Your task to perform on an android device: change the clock style Image 0: 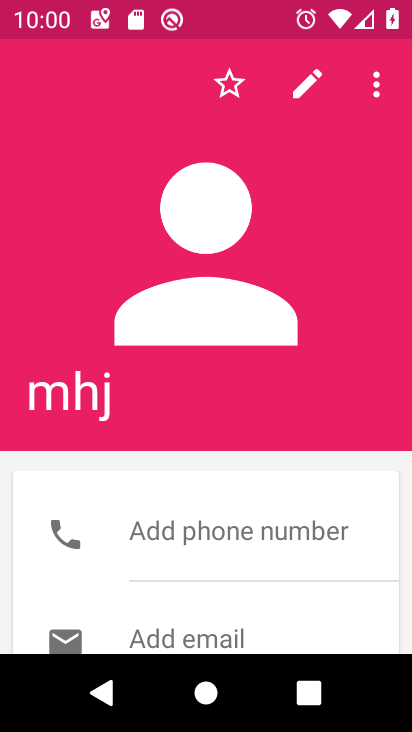
Step 0: press home button
Your task to perform on an android device: change the clock style Image 1: 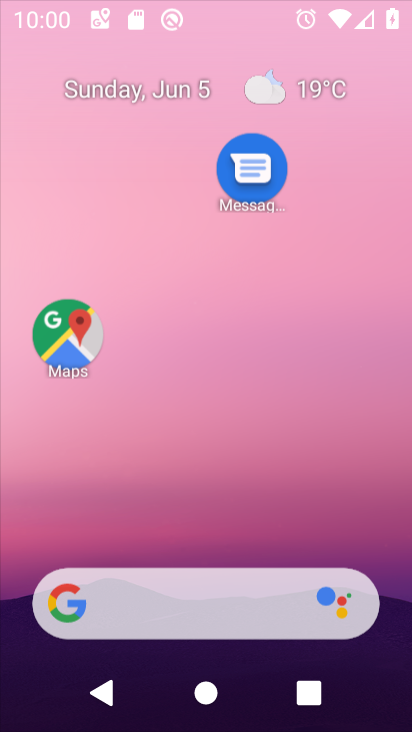
Step 1: drag from (292, 508) to (367, 77)
Your task to perform on an android device: change the clock style Image 2: 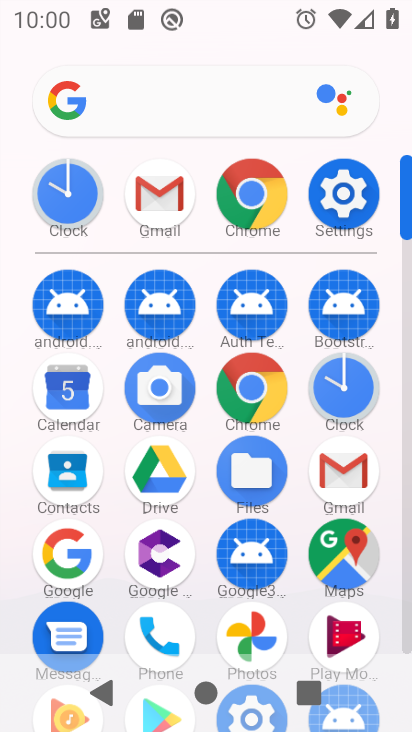
Step 2: click (353, 397)
Your task to perform on an android device: change the clock style Image 3: 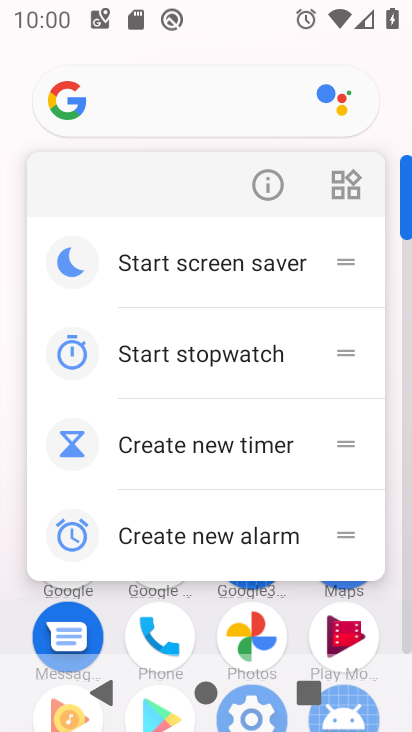
Step 3: click (259, 182)
Your task to perform on an android device: change the clock style Image 4: 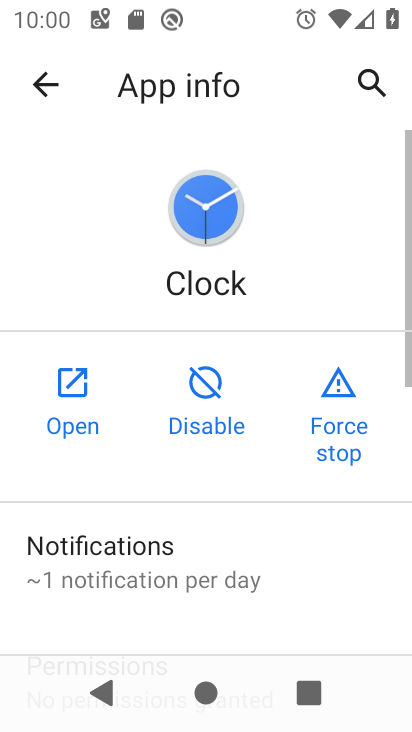
Step 4: click (84, 367)
Your task to perform on an android device: change the clock style Image 5: 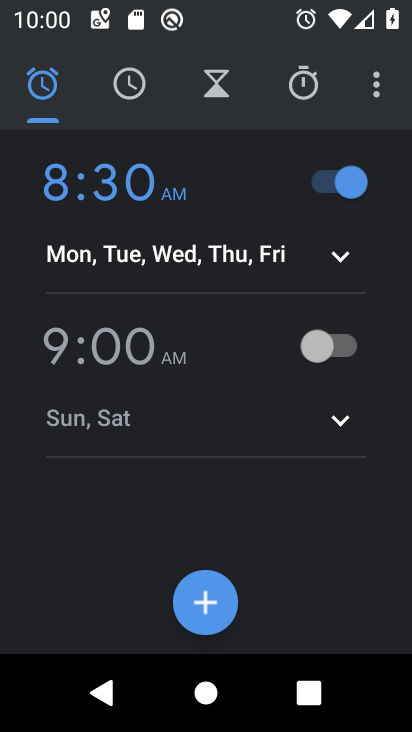
Step 5: click (369, 102)
Your task to perform on an android device: change the clock style Image 6: 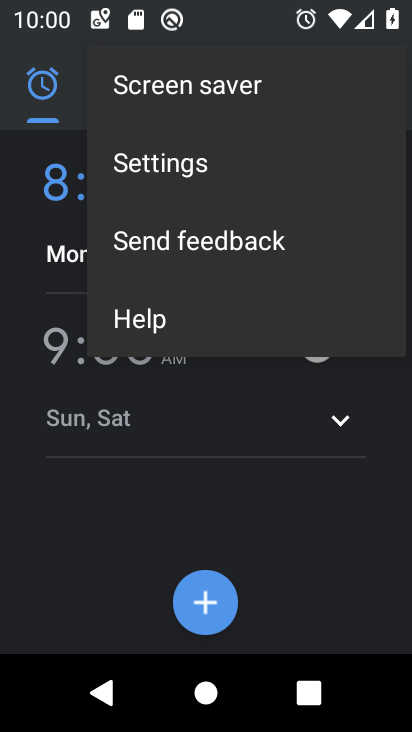
Step 6: click (171, 163)
Your task to perform on an android device: change the clock style Image 7: 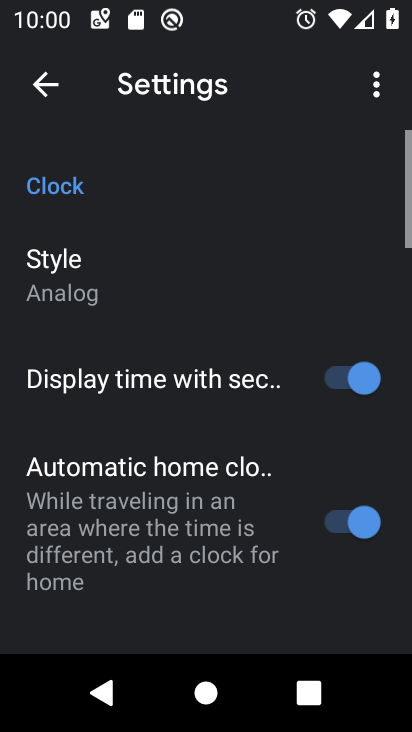
Step 7: click (100, 264)
Your task to perform on an android device: change the clock style Image 8: 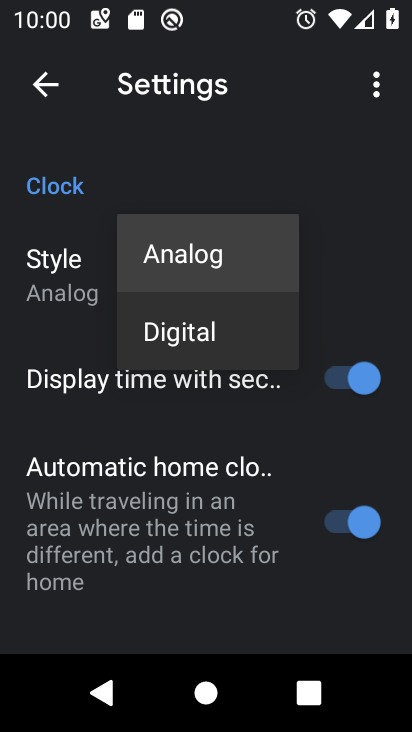
Step 8: click (162, 314)
Your task to perform on an android device: change the clock style Image 9: 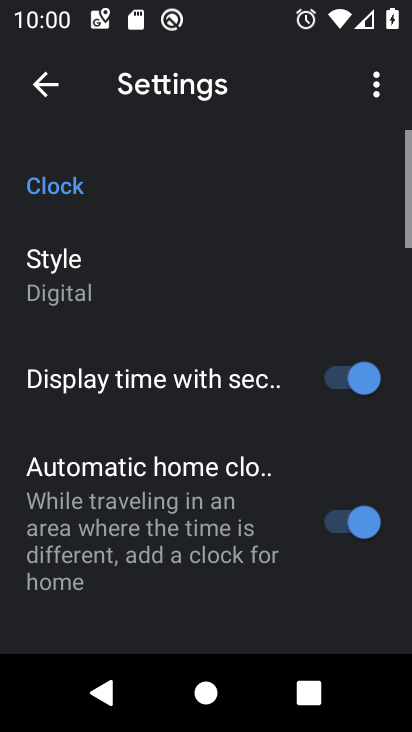
Step 9: task complete